Your task to perform on an android device: Open Google Maps Image 0: 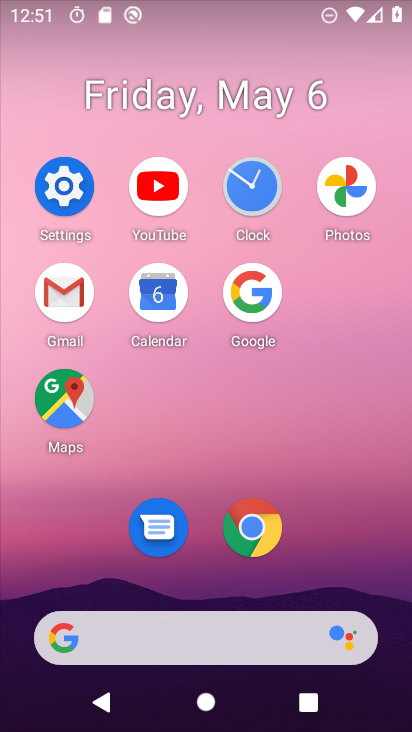
Step 0: click (71, 400)
Your task to perform on an android device: Open Google Maps Image 1: 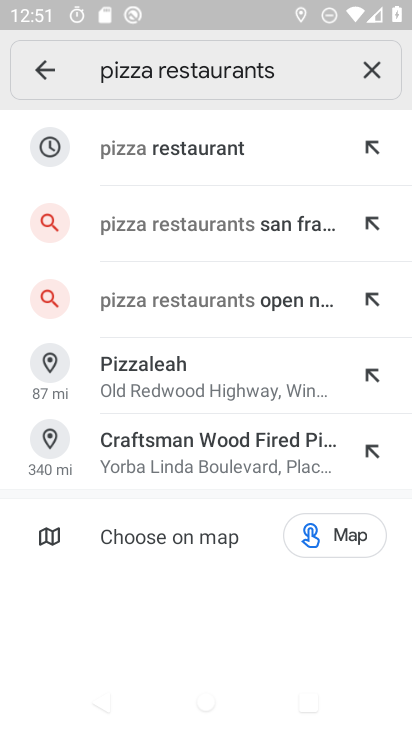
Step 1: task complete